Your task to perform on an android device: Do I have any events tomorrow? Image 0: 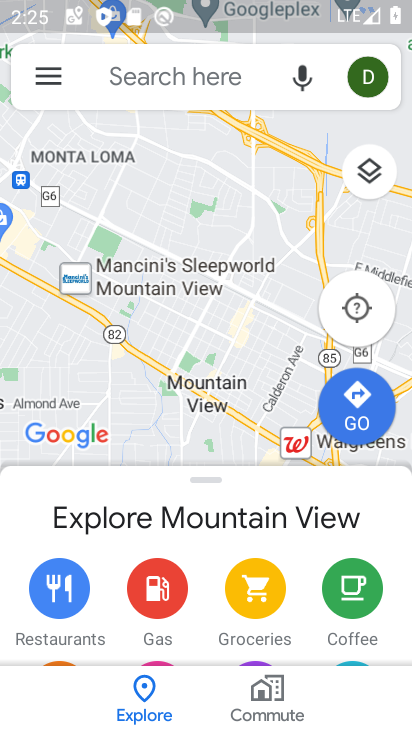
Step 0: press home button
Your task to perform on an android device: Do I have any events tomorrow? Image 1: 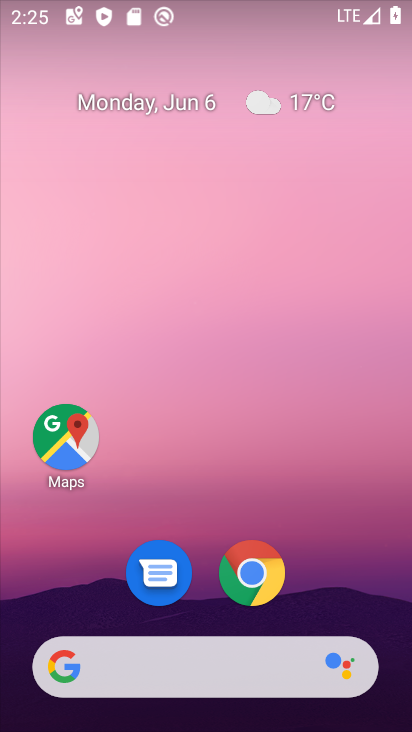
Step 1: drag from (358, 566) to (369, 143)
Your task to perform on an android device: Do I have any events tomorrow? Image 2: 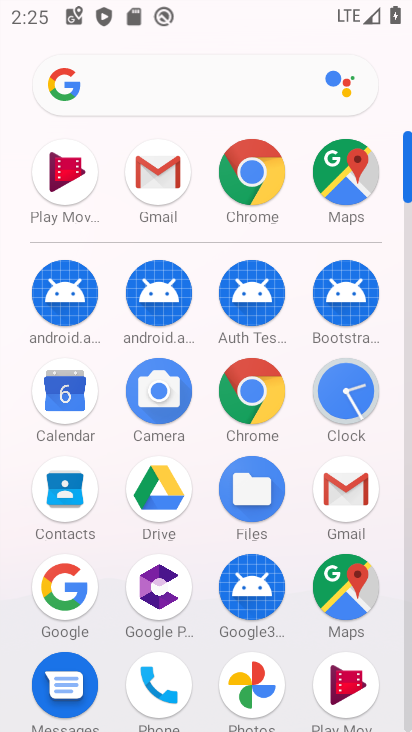
Step 2: click (67, 413)
Your task to perform on an android device: Do I have any events tomorrow? Image 3: 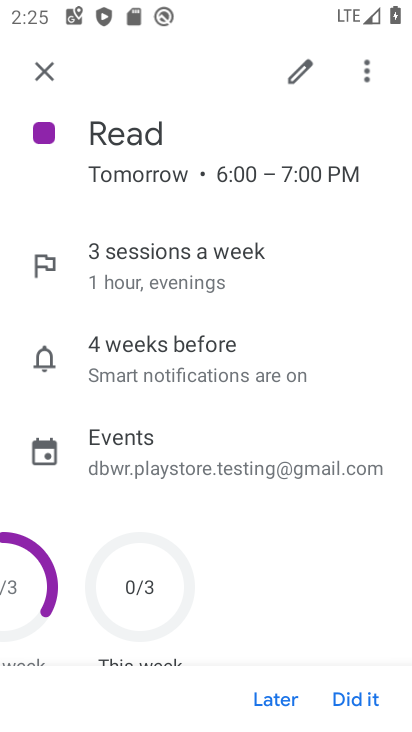
Step 3: task complete